Your task to perform on an android device: see tabs open on other devices in the chrome app Image 0: 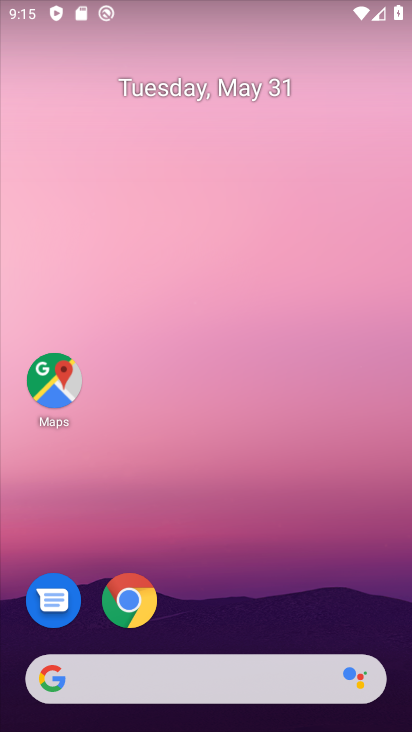
Step 0: click (217, 674)
Your task to perform on an android device: see tabs open on other devices in the chrome app Image 1: 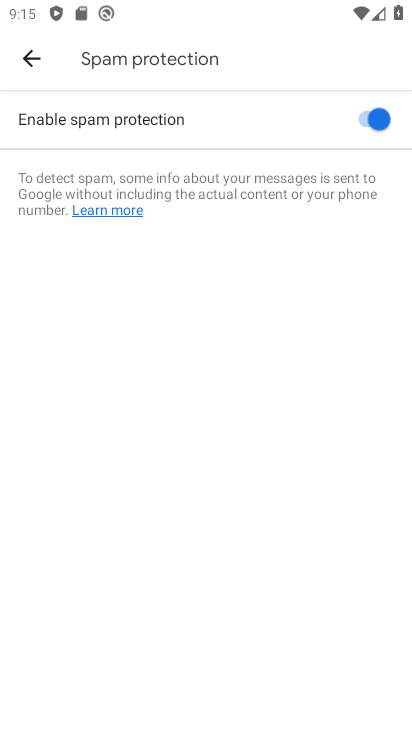
Step 1: press home button
Your task to perform on an android device: see tabs open on other devices in the chrome app Image 2: 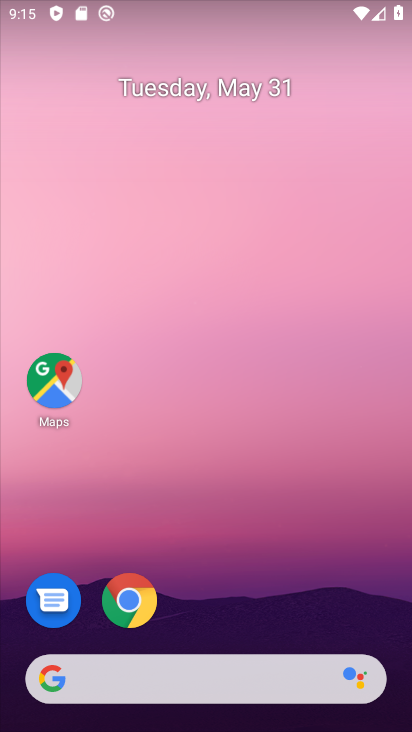
Step 2: click (126, 695)
Your task to perform on an android device: see tabs open on other devices in the chrome app Image 3: 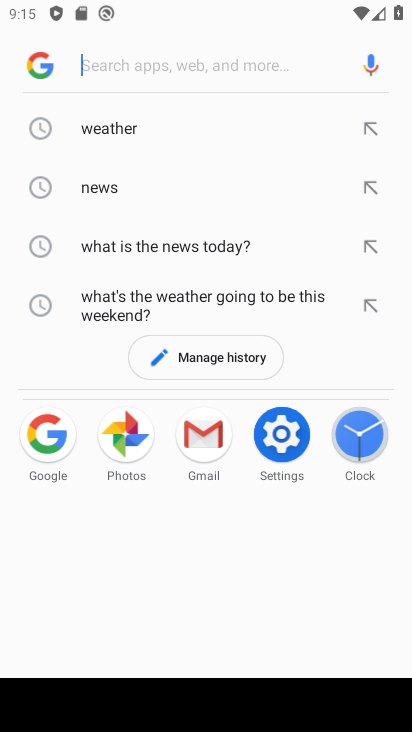
Step 3: task complete